Your task to perform on an android device: turn off notifications settings in the gmail app Image 0: 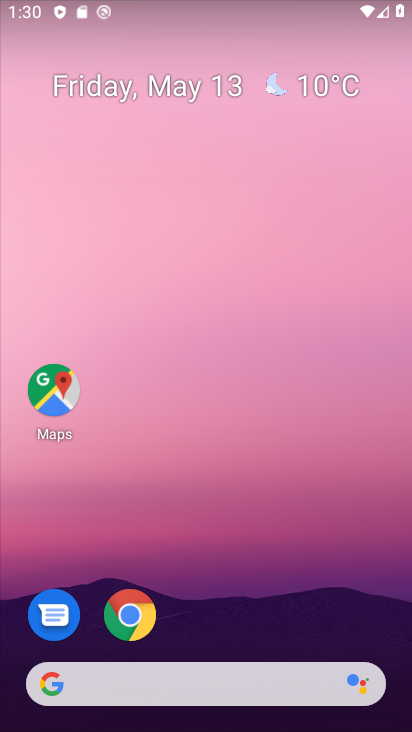
Step 0: drag from (206, 584) to (48, 103)
Your task to perform on an android device: turn off notifications settings in the gmail app Image 1: 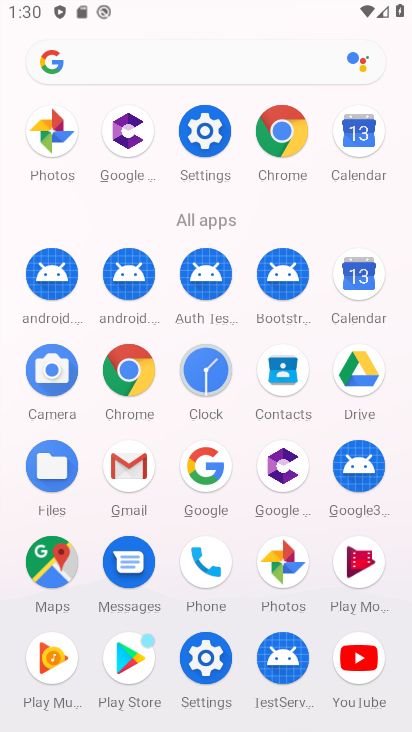
Step 1: click (135, 488)
Your task to perform on an android device: turn off notifications settings in the gmail app Image 2: 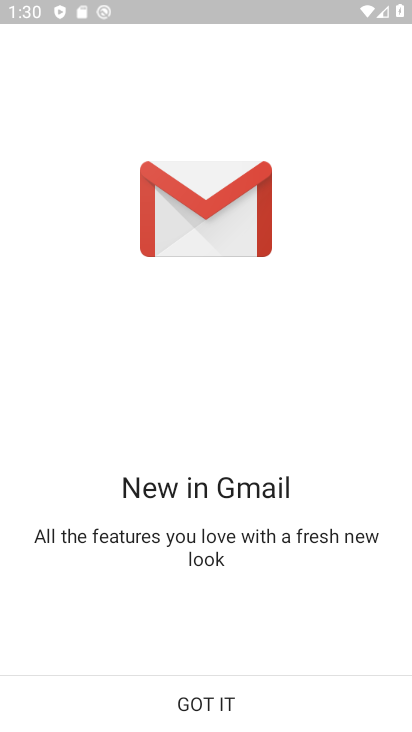
Step 2: click (213, 698)
Your task to perform on an android device: turn off notifications settings in the gmail app Image 3: 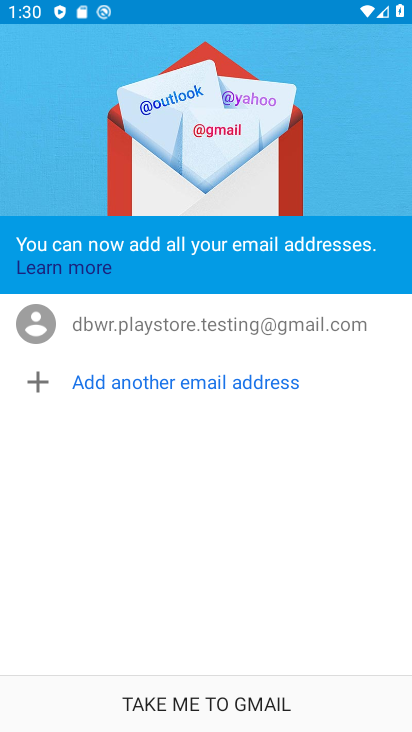
Step 3: click (213, 697)
Your task to perform on an android device: turn off notifications settings in the gmail app Image 4: 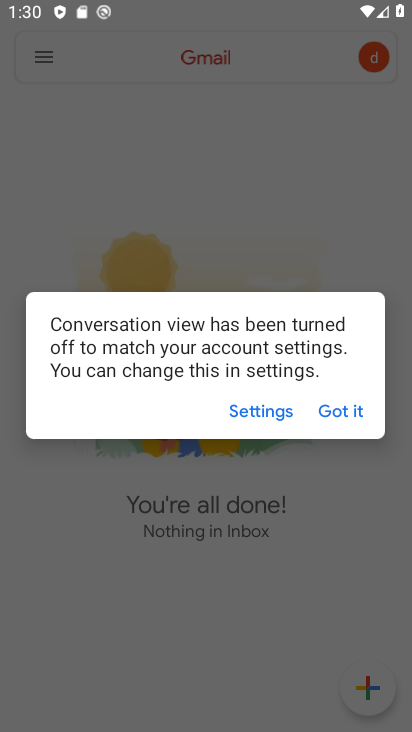
Step 4: click (344, 413)
Your task to perform on an android device: turn off notifications settings in the gmail app Image 5: 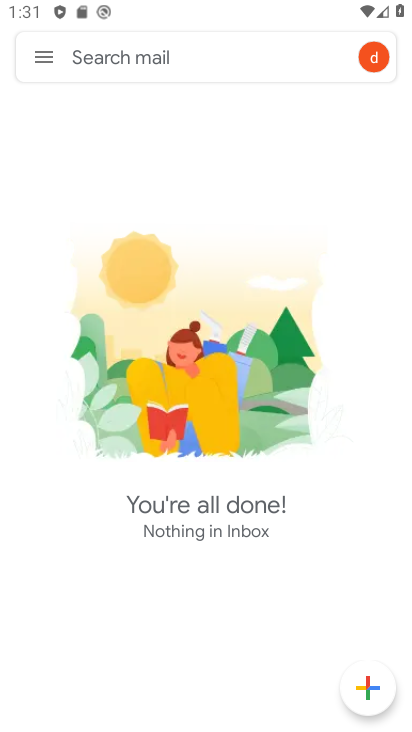
Step 5: click (71, 51)
Your task to perform on an android device: turn off notifications settings in the gmail app Image 6: 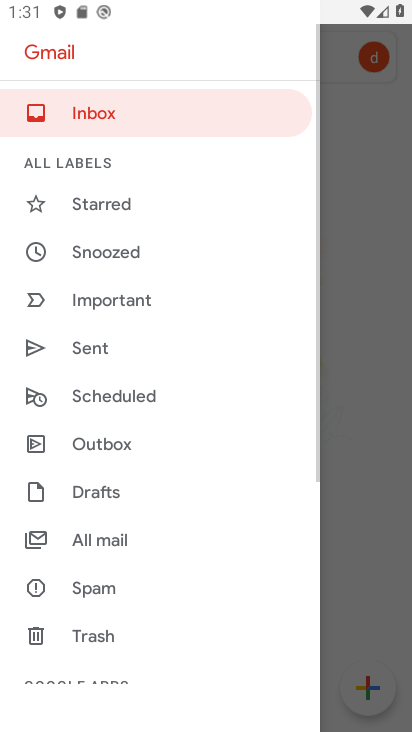
Step 6: drag from (128, 605) to (162, 176)
Your task to perform on an android device: turn off notifications settings in the gmail app Image 7: 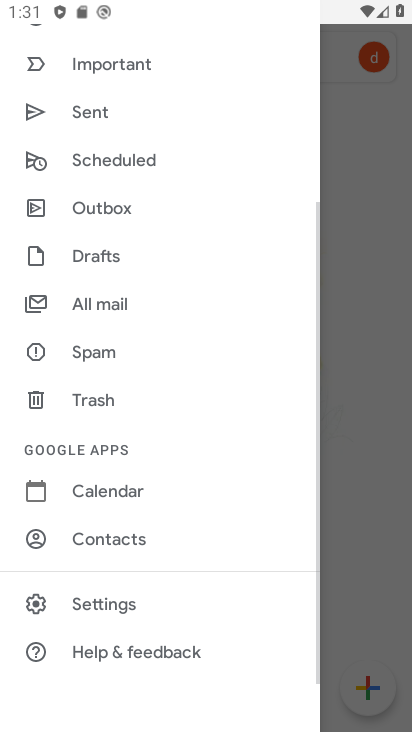
Step 7: click (129, 607)
Your task to perform on an android device: turn off notifications settings in the gmail app Image 8: 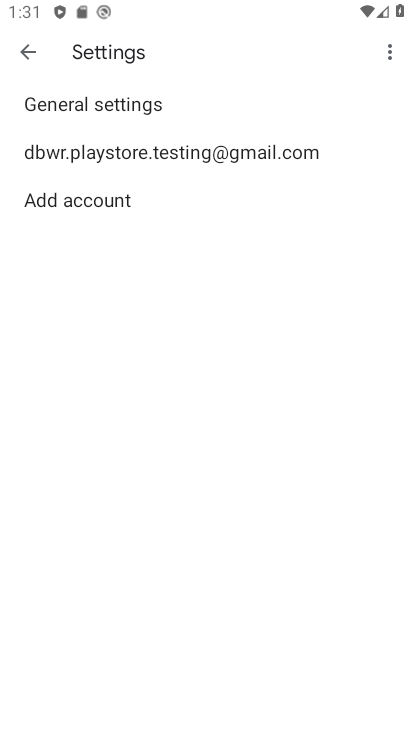
Step 8: click (151, 154)
Your task to perform on an android device: turn off notifications settings in the gmail app Image 9: 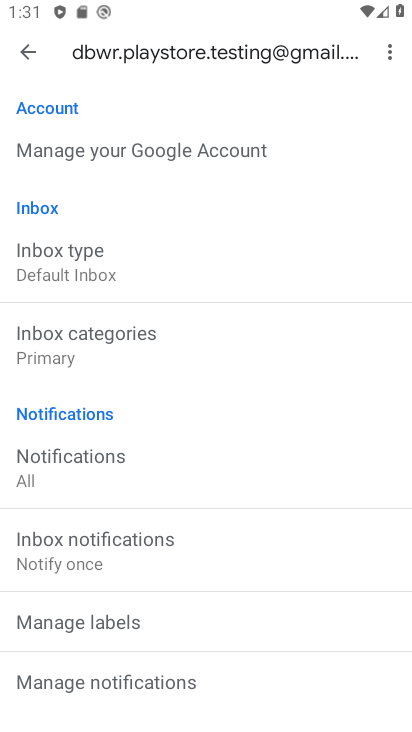
Step 9: click (111, 680)
Your task to perform on an android device: turn off notifications settings in the gmail app Image 10: 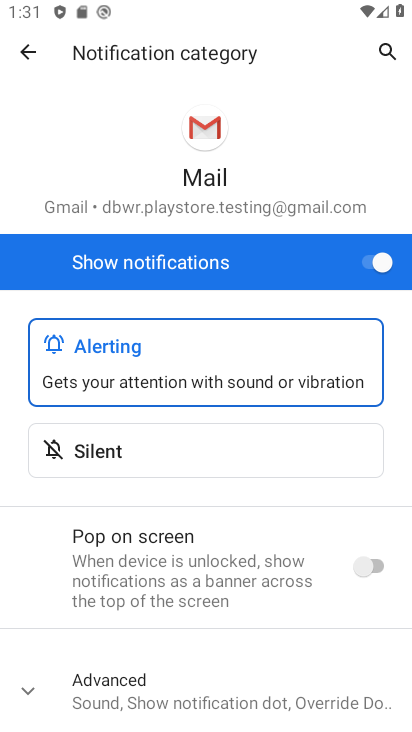
Step 10: click (371, 266)
Your task to perform on an android device: turn off notifications settings in the gmail app Image 11: 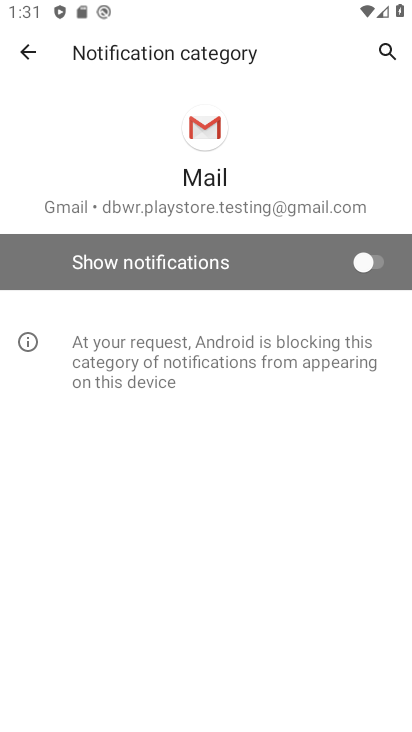
Step 11: task complete